Your task to perform on an android device: Go to Yahoo.com Image 0: 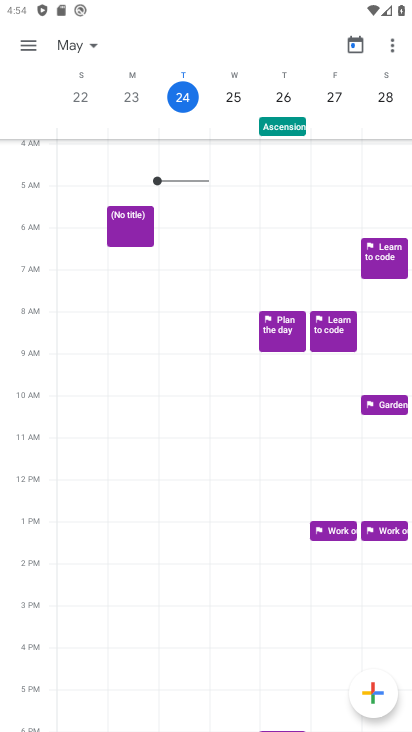
Step 0: press home button
Your task to perform on an android device: Go to Yahoo.com Image 1: 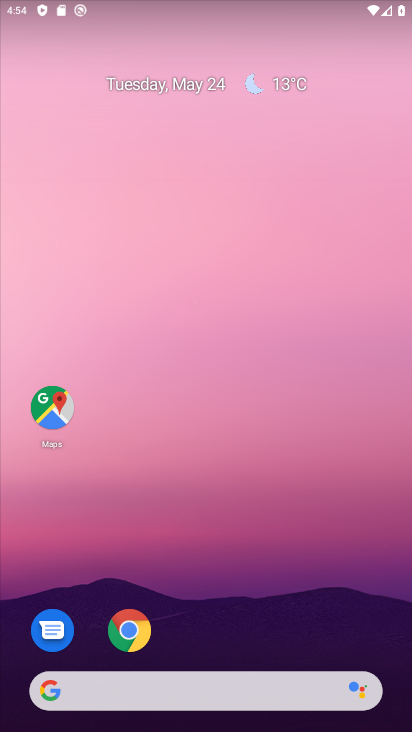
Step 1: click (129, 637)
Your task to perform on an android device: Go to Yahoo.com Image 2: 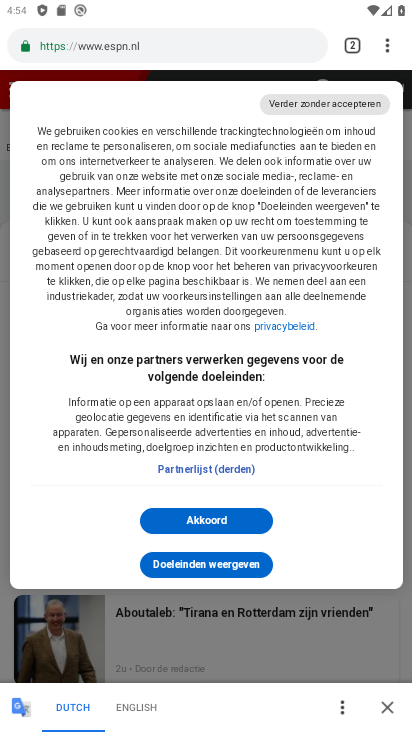
Step 2: press back button
Your task to perform on an android device: Go to Yahoo.com Image 3: 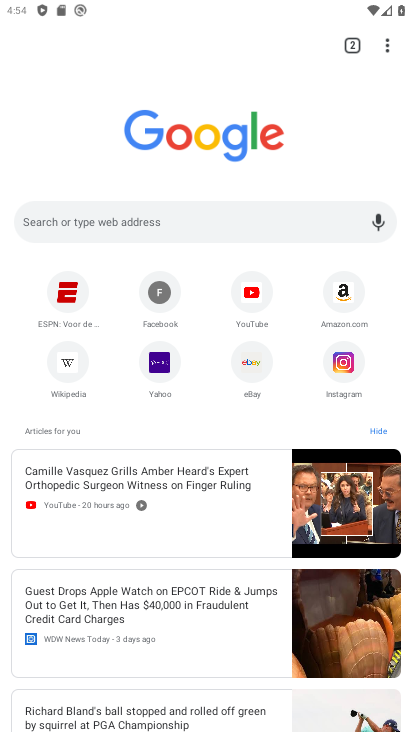
Step 3: click (161, 386)
Your task to perform on an android device: Go to Yahoo.com Image 4: 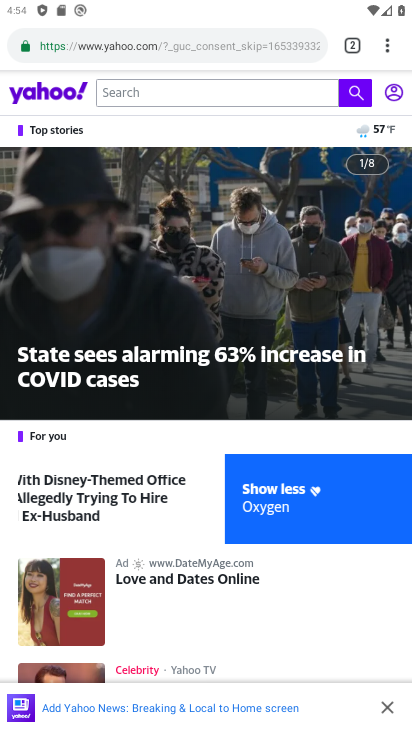
Step 4: task complete